Your task to perform on an android device: Go to Yahoo.com Image 0: 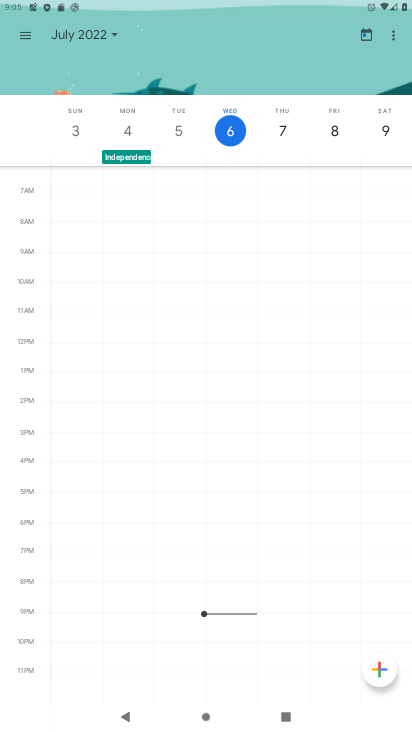
Step 0: press home button
Your task to perform on an android device: Go to Yahoo.com Image 1: 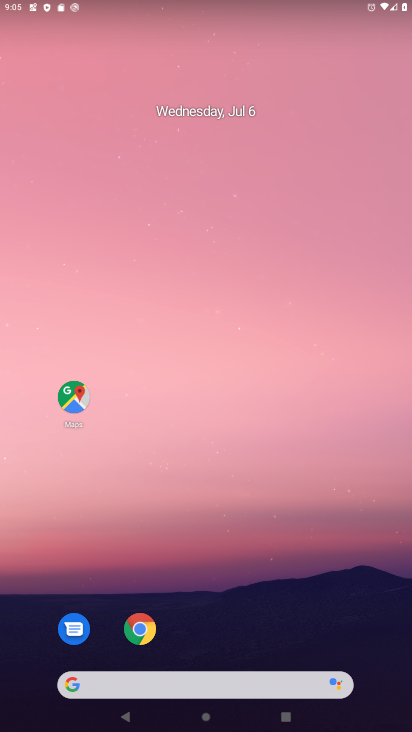
Step 1: click (129, 632)
Your task to perform on an android device: Go to Yahoo.com Image 2: 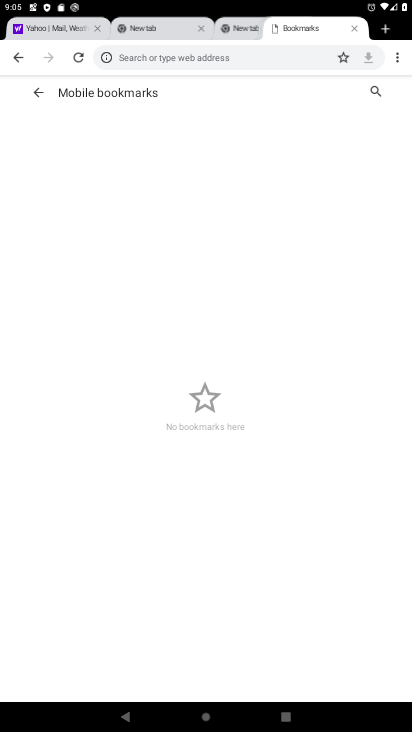
Step 2: click (63, 24)
Your task to perform on an android device: Go to Yahoo.com Image 3: 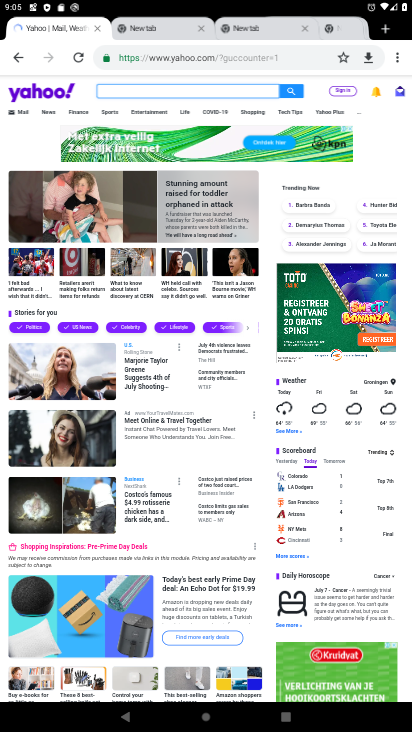
Step 3: task complete